Your task to perform on an android device: check data usage Image 0: 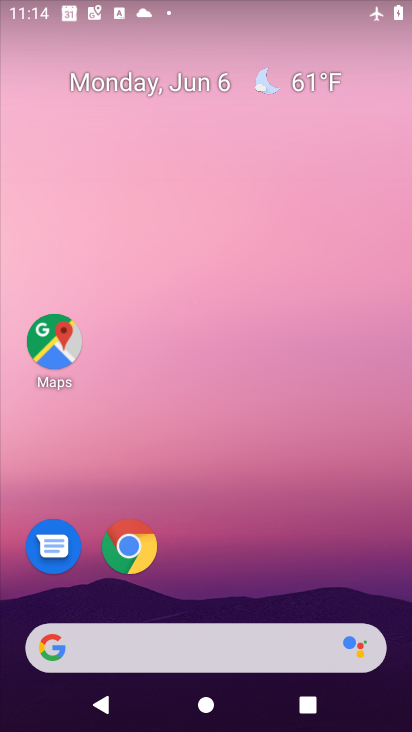
Step 0: drag from (394, 608) to (291, 98)
Your task to perform on an android device: check data usage Image 1: 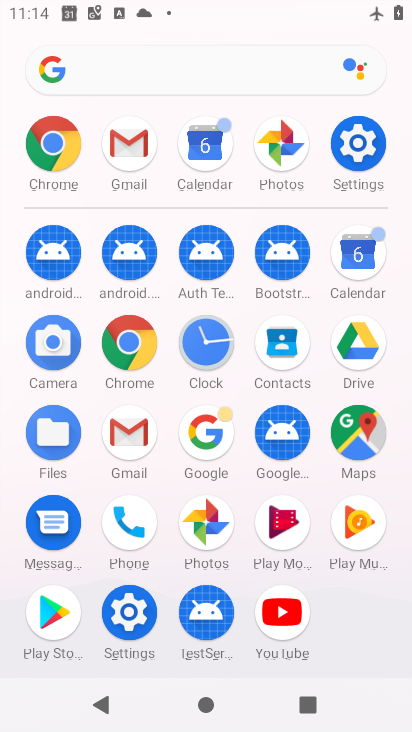
Step 1: click (128, 612)
Your task to perform on an android device: check data usage Image 2: 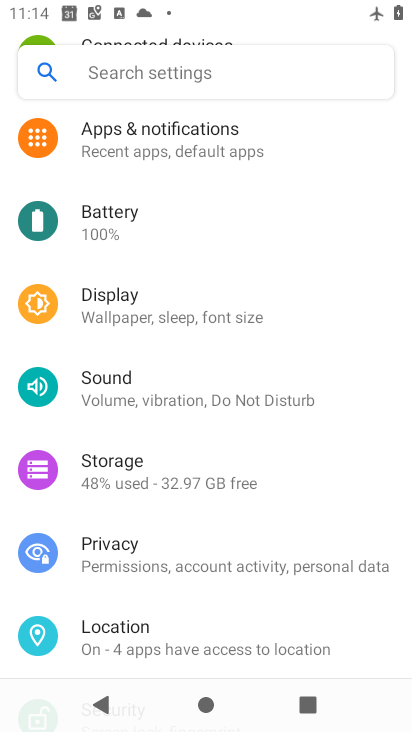
Step 2: drag from (340, 165) to (349, 447)
Your task to perform on an android device: check data usage Image 3: 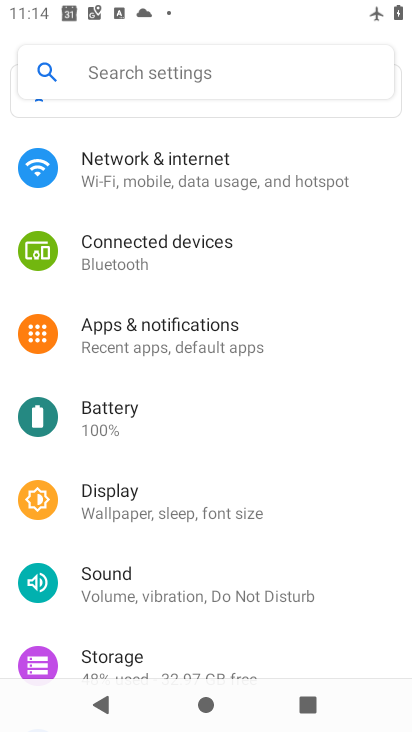
Step 3: click (141, 163)
Your task to perform on an android device: check data usage Image 4: 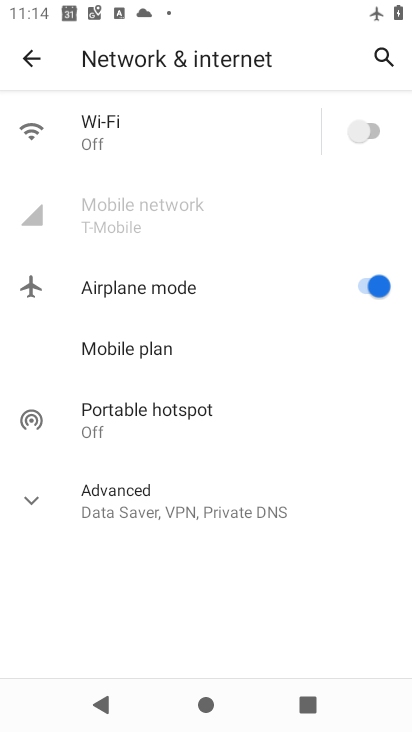
Step 4: click (358, 285)
Your task to perform on an android device: check data usage Image 5: 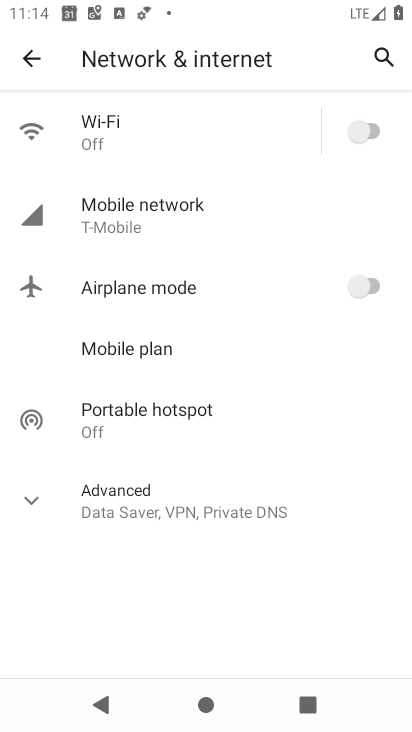
Step 5: click (152, 216)
Your task to perform on an android device: check data usage Image 6: 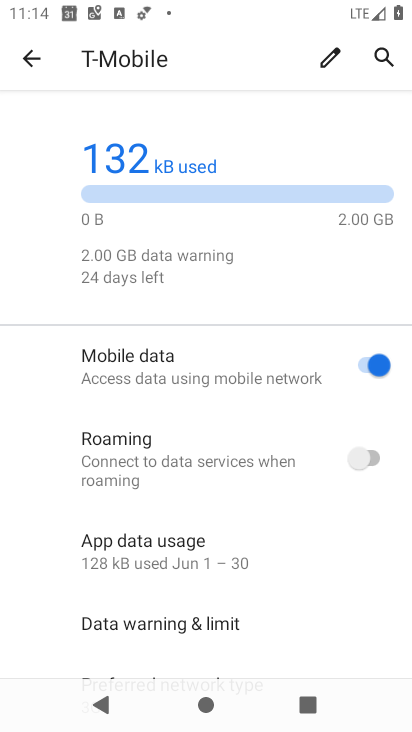
Step 6: task complete